Your task to perform on an android device: What's on my calendar today? Image 0: 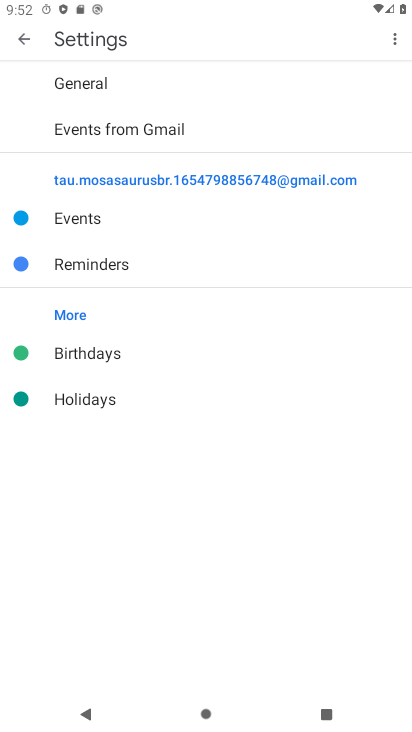
Step 0: click (36, 40)
Your task to perform on an android device: What's on my calendar today? Image 1: 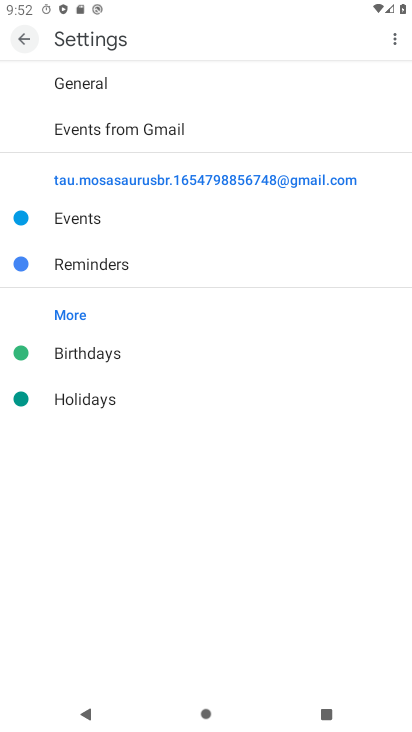
Step 1: click (24, 28)
Your task to perform on an android device: What's on my calendar today? Image 2: 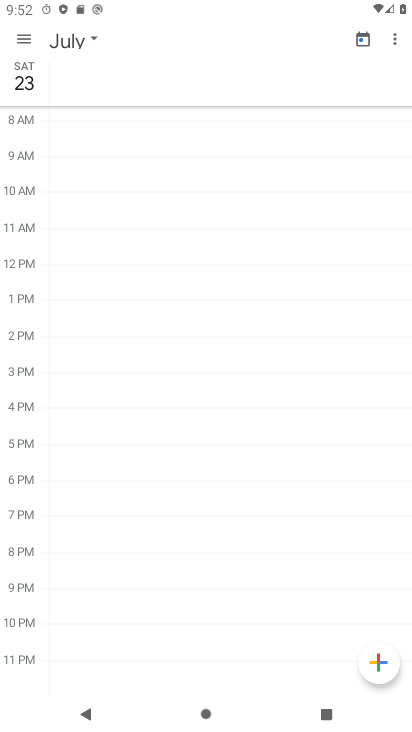
Step 2: press back button
Your task to perform on an android device: What's on my calendar today? Image 3: 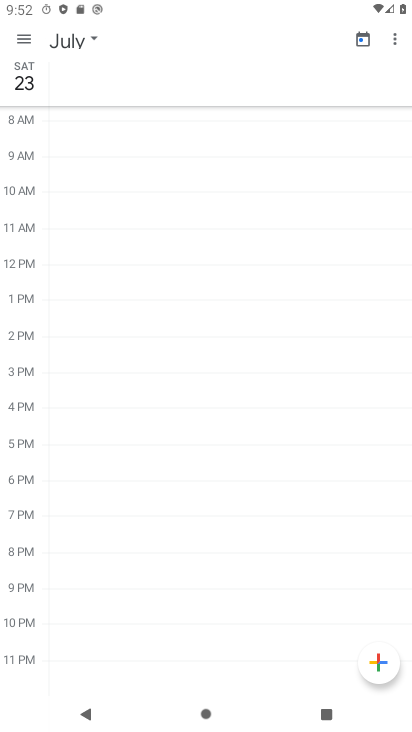
Step 3: press back button
Your task to perform on an android device: What's on my calendar today? Image 4: 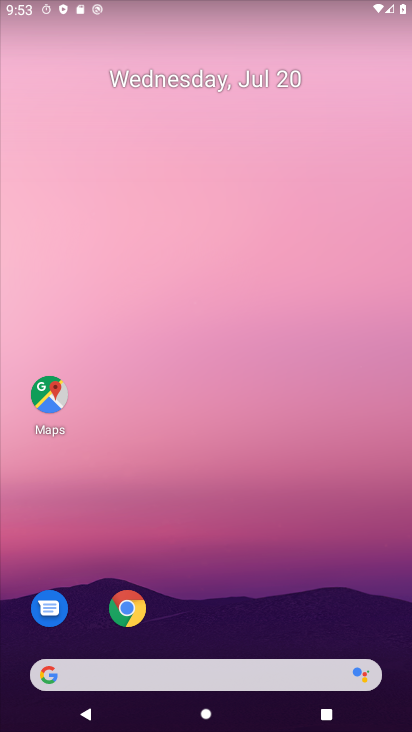
Step 4: click (258, 128)
Your task to perform on an android device: What's on my calendar today? Image 5: 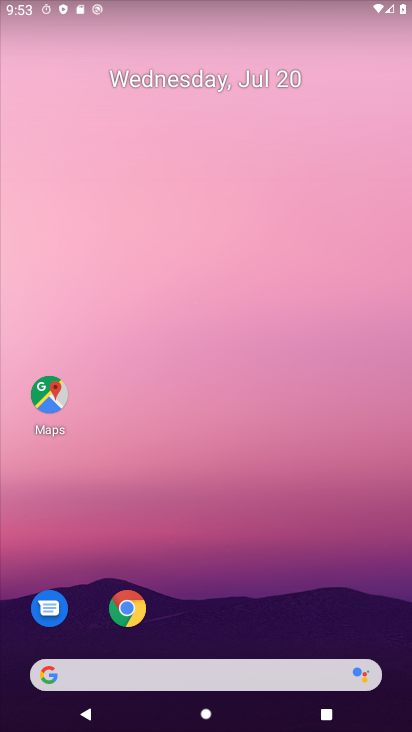
Step 5: drag from (236, 572) to (207, 6)
Your task to perform on an android device: What's on my calendar today? Image 6: 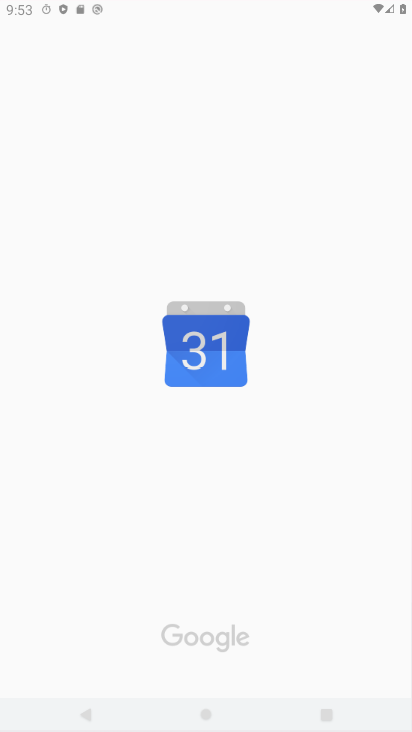
Step 6: drag from (228, 367) to (224, 187)
Your task to perform on an android device: What's on my calendar today? Image 7: 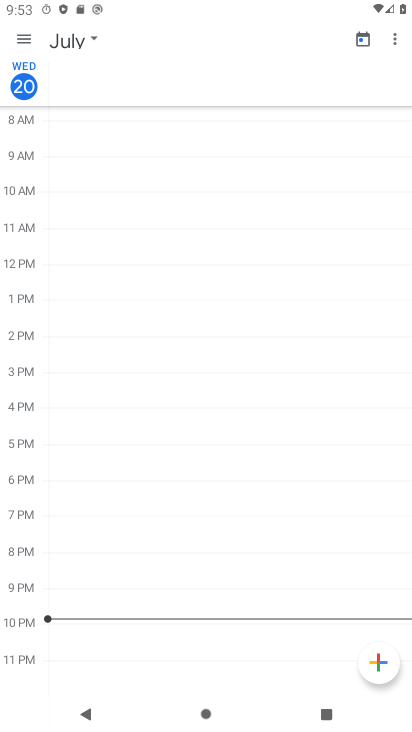
Step 7: click (89, 43)
Your task to perform on an android device: What's on my calendar today? Image 8: 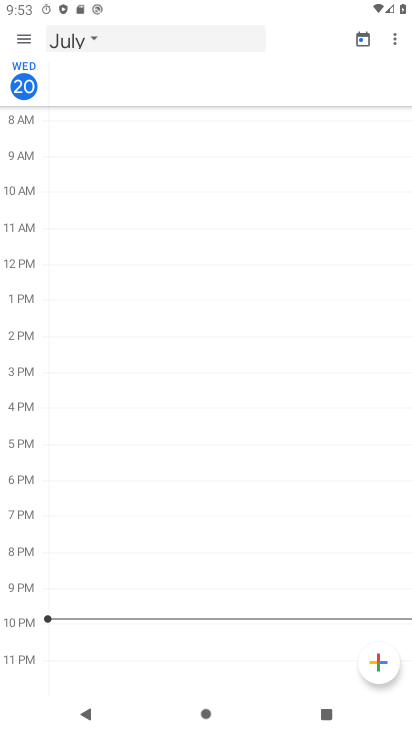
Step 8: click (85, 39)
Your task to perform on an android device: What's on my calendar today? Image 9: 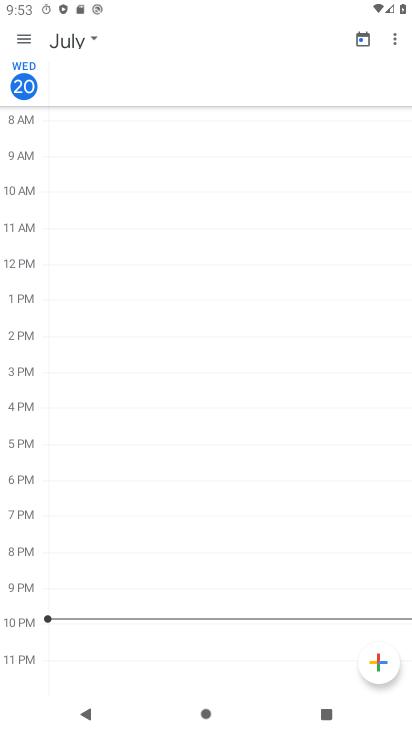
Step 9: click (101, 35)
Your task to perform on an android device: What's on my calendar today? Image 10: 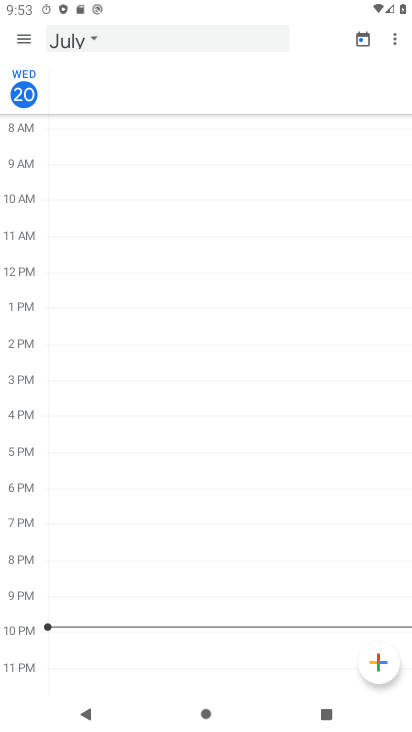
Step 10: click (100, 31)
Your task to perform on an android device: What's on my calendar today? Image 11: 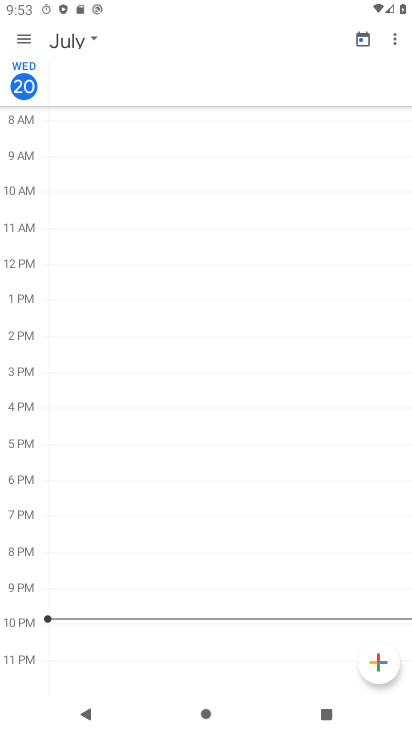
Step 11: click (96, 40)
Your task to perform on an android device: What's on my calendar today? Image 12: 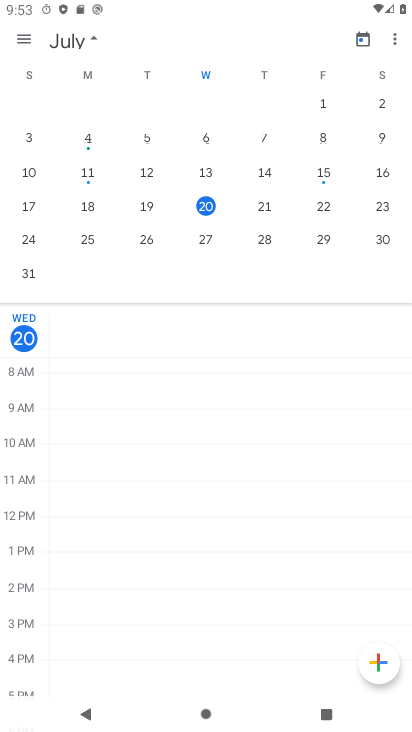
Step 12: task complete